Your task to perform on an android device: turn on wifi Image 0: 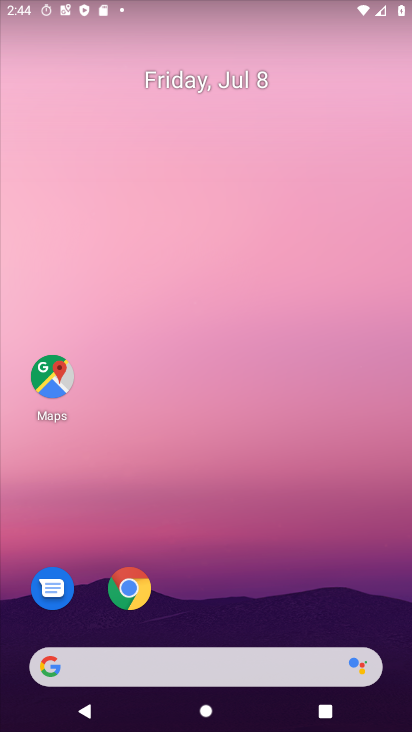
Step 0: press home button
Your task to perform on an android device: turn on wifi Image 1: 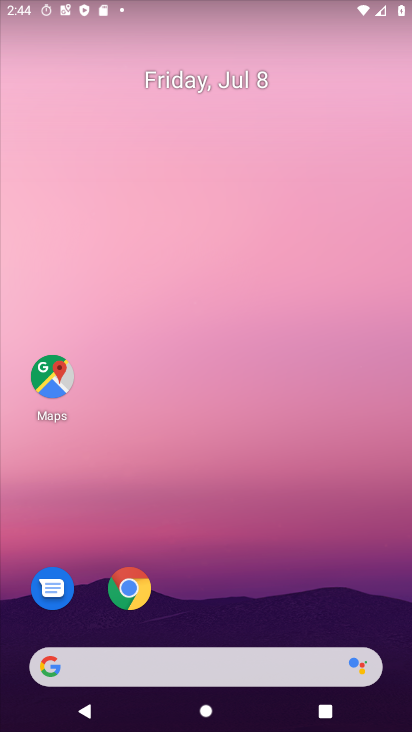
Step 1: drag from (217, 432) to (218, 538)
Your task to perform on an android device: turn on wifi Image 2: 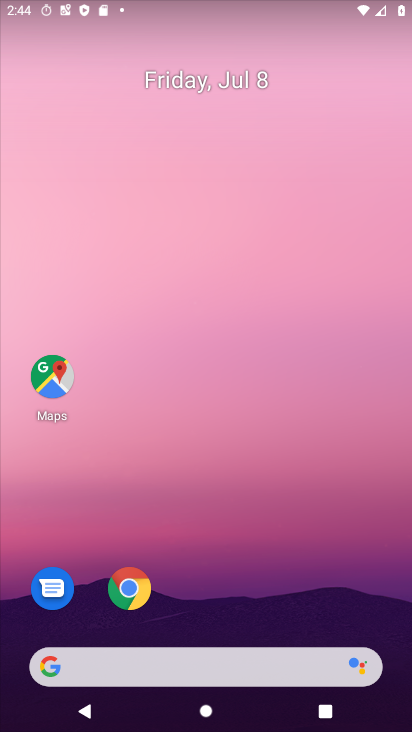
Step 2: drag from (219, 89) to (272, 573)
Your task to perform on an android device: turn on wifi Image 3: 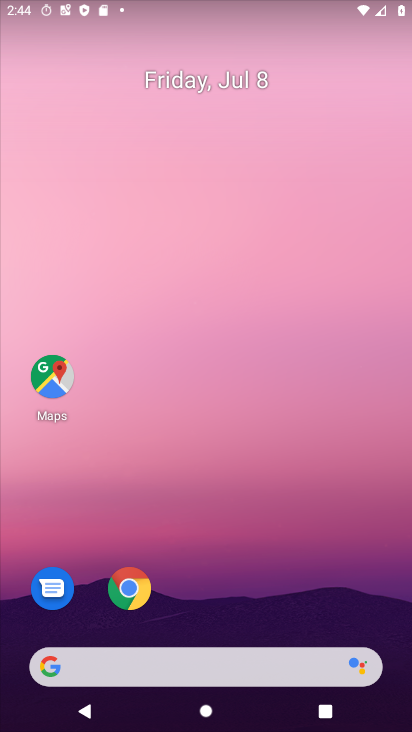
Step 3: drag from (230, 164) to (244, 711)
Your task to perform on an android device: turn on wifi Image 4: 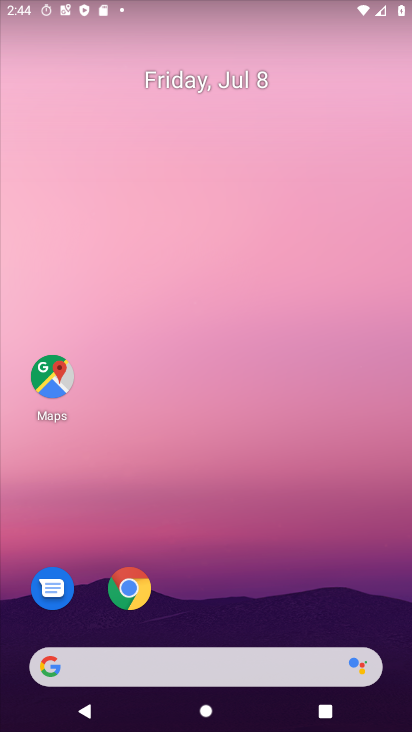
Step 4: click (206, 451)
Your task to perform on an android device: turn on wifi Image 5: 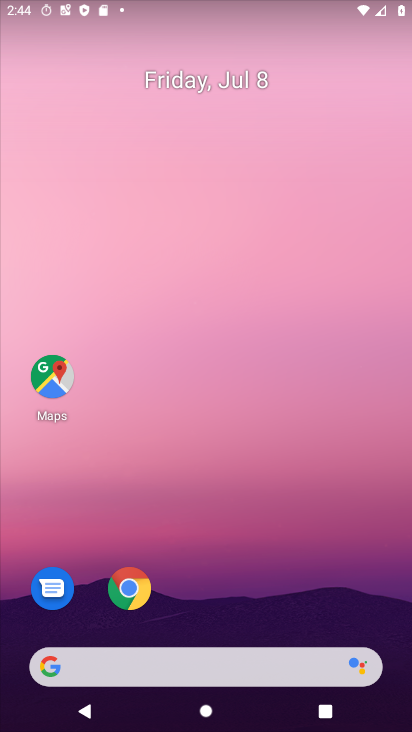
Step 5: task complete